Your task to perform on an android device: turn off wifi Image 0: 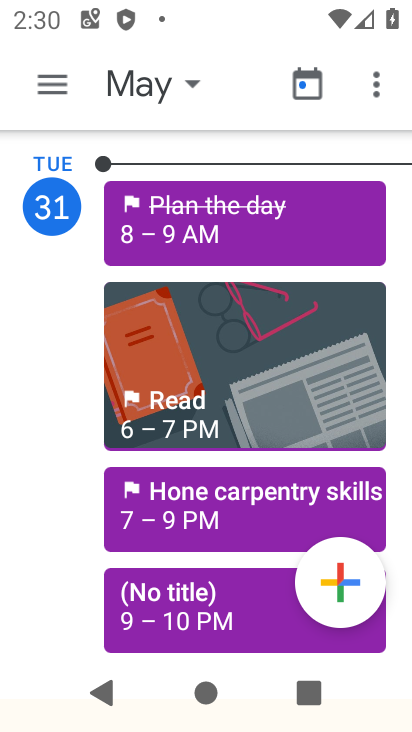
Step 0: task complete